Your task to perform on an android device: turn on the 12-hour format for clock Image 0: 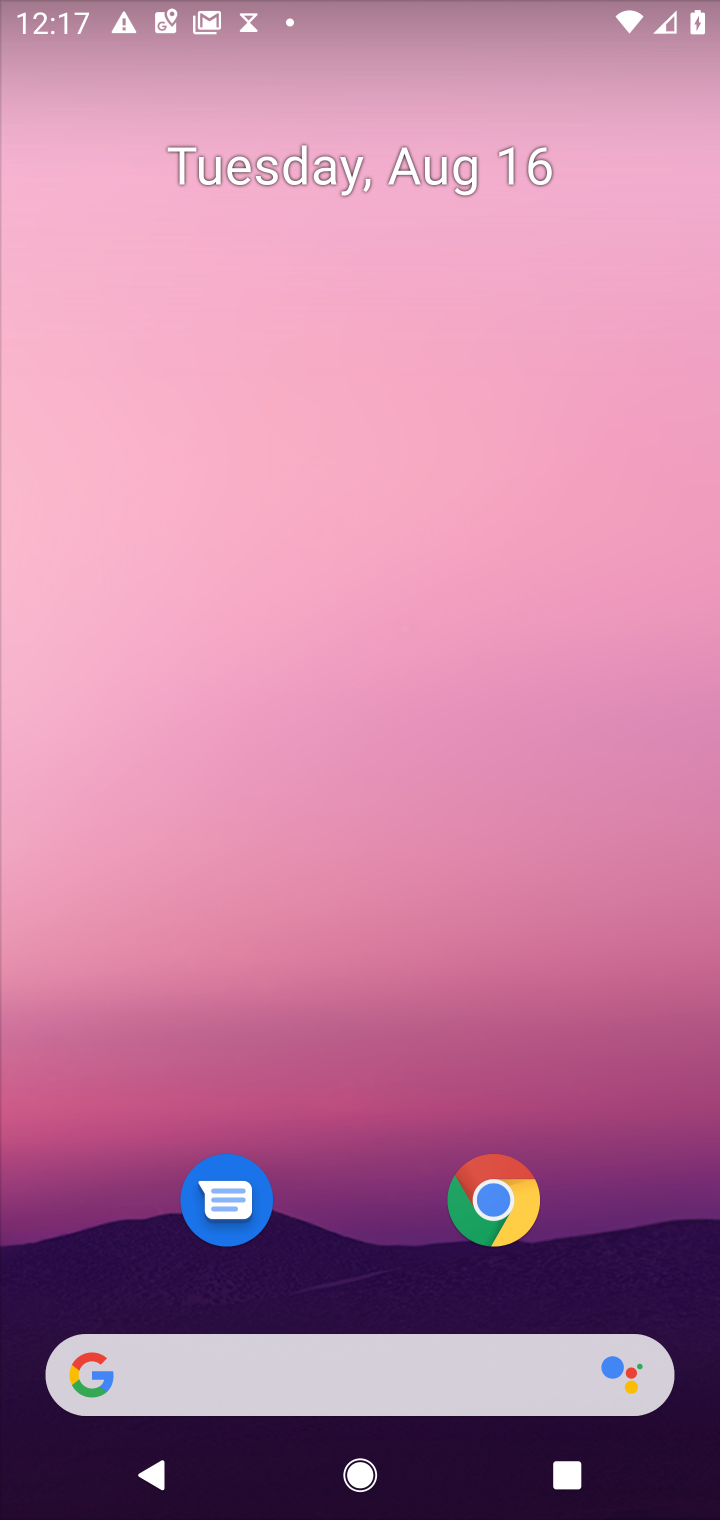
Step 0: drag from (355, 1193) to (344, 324)
Your task to perform on an android device: turn on the 12-hour format for clock Image 1: 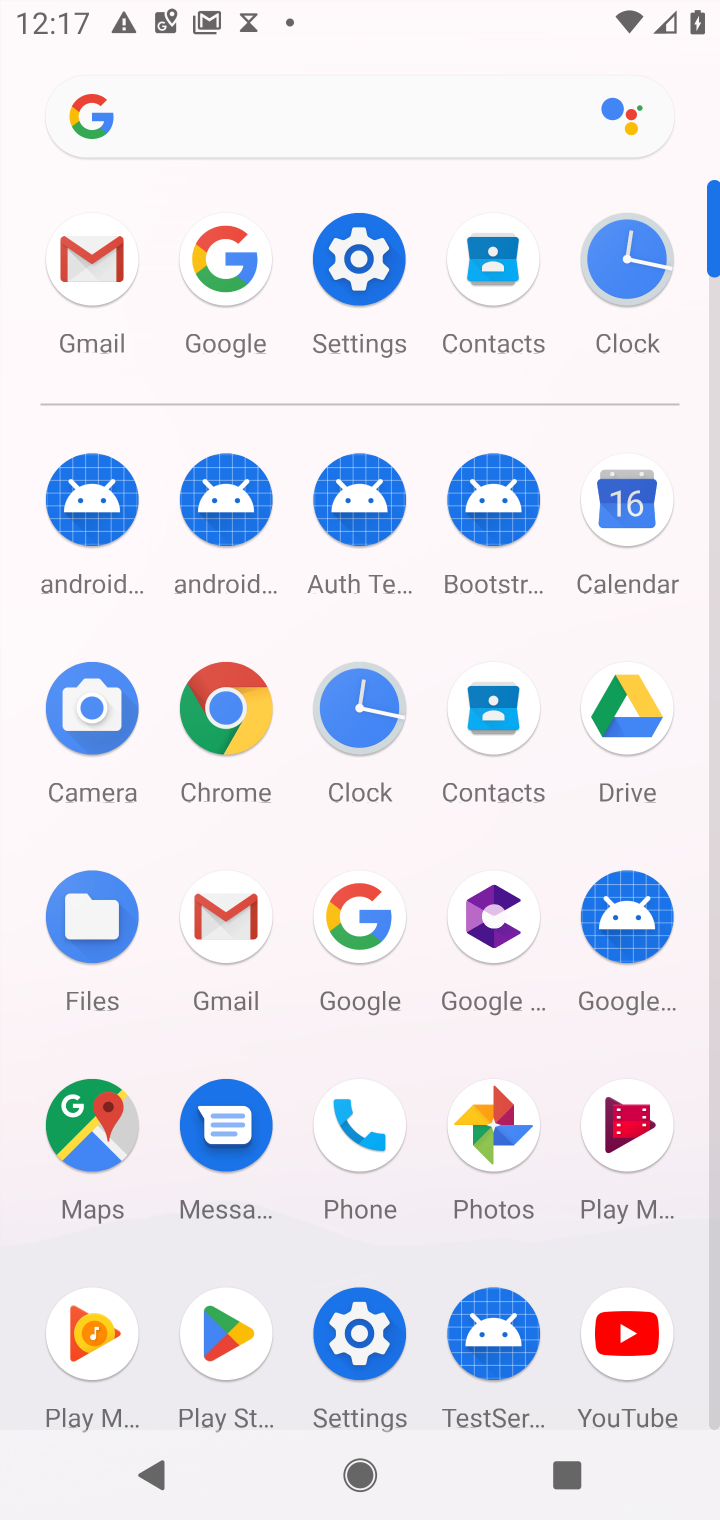
Step 1: click (624, 263)
Your task to perform on an android device: turn on the 12-hour format for clock Image 2: 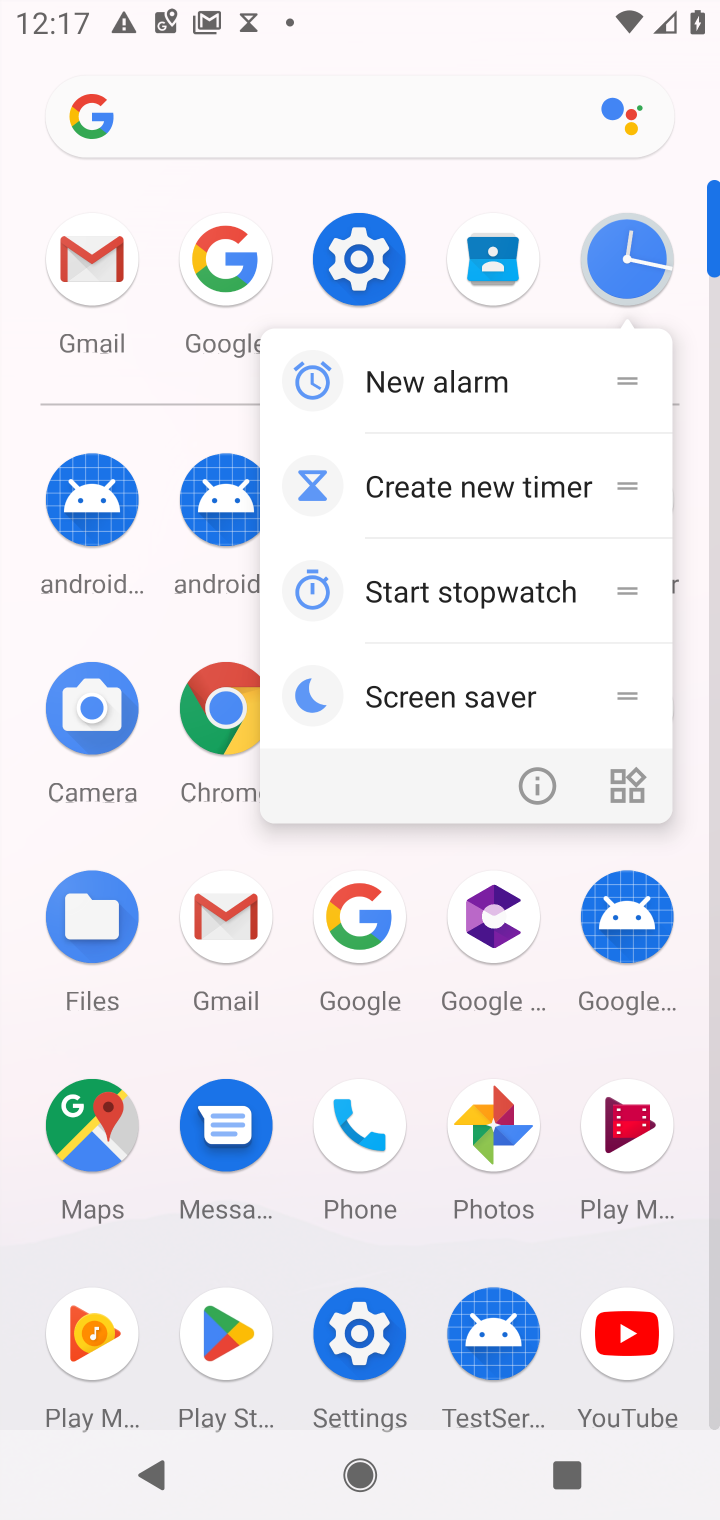
Step 2: click (624, 263)
Your task to perform on an android device: turn on the 12-hour format for clock Image 3: 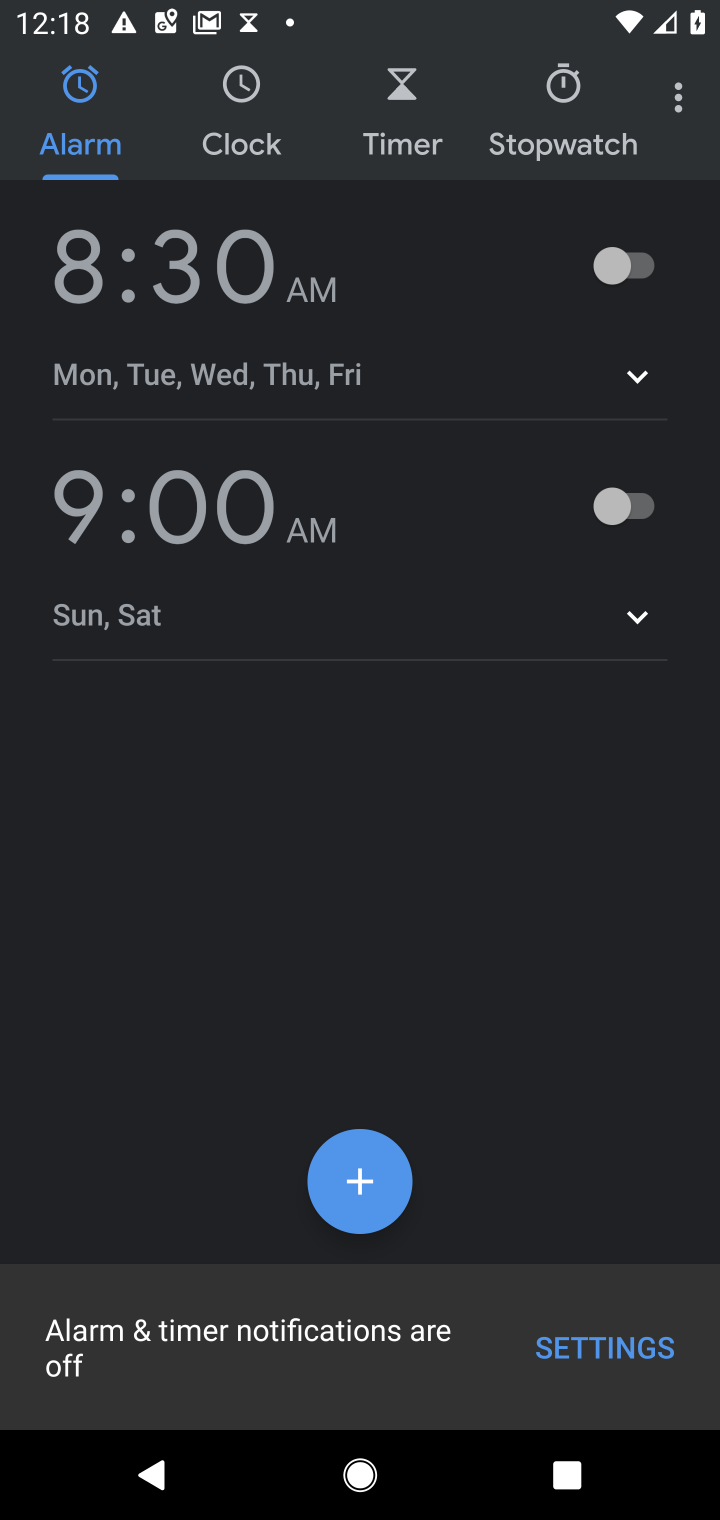
Step 3: click (669, 107)
Your task to perform on an android device: turn on the 12-hour format for clock Image 4: 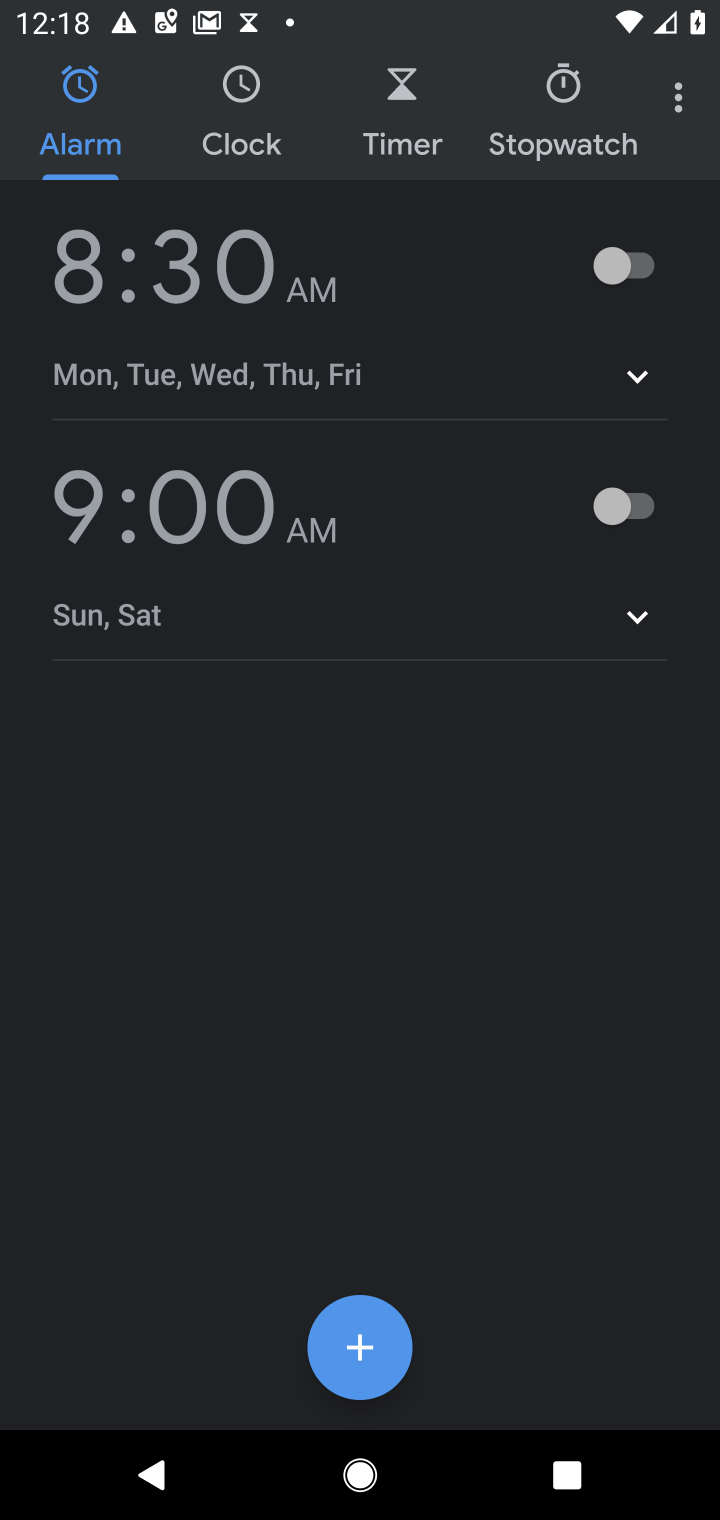
Step 4: click (662, 101)
Your task to perform on an android device: turn on the 12-hour format for clock Image 5: 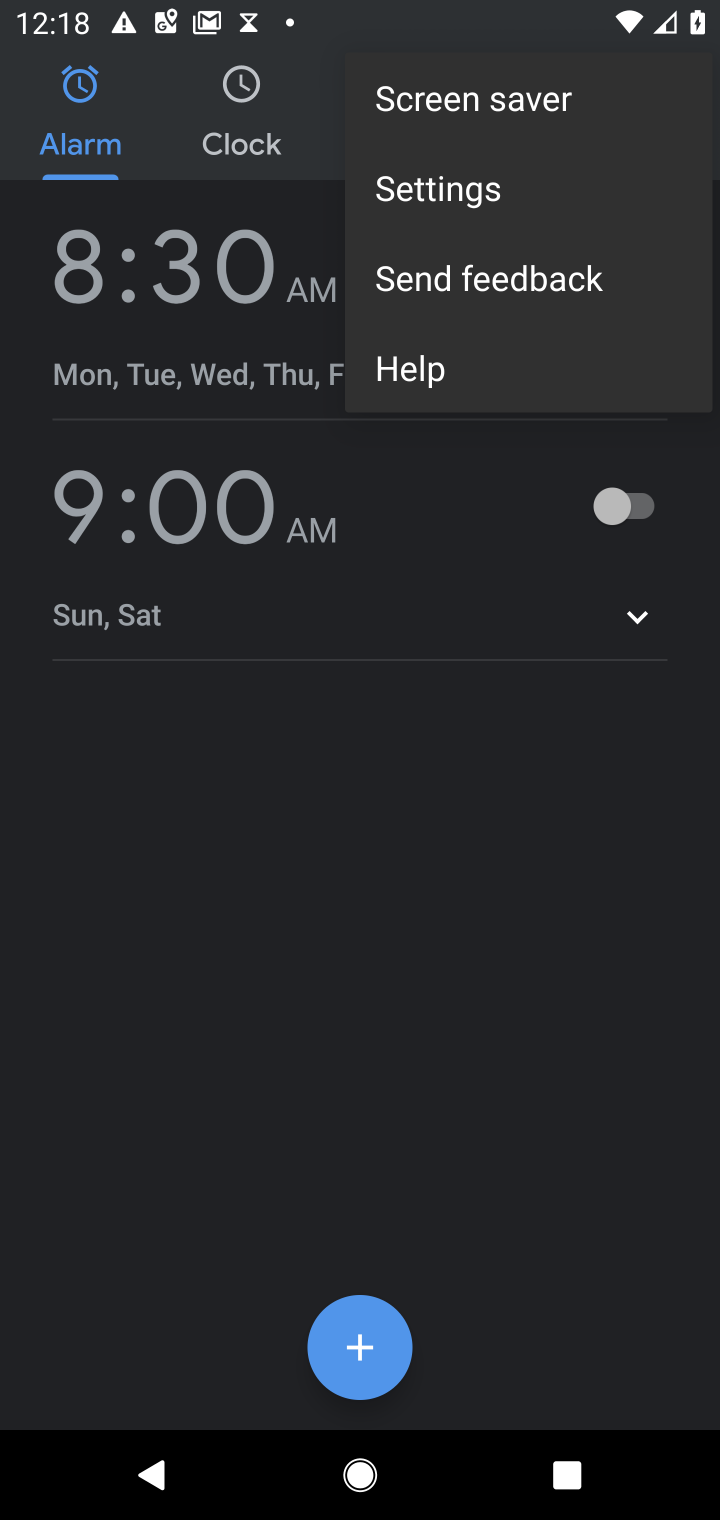
Step 5: click (442, 190)
Your task to perform on an android device: turn on the 12-hour format for clock Image 6: 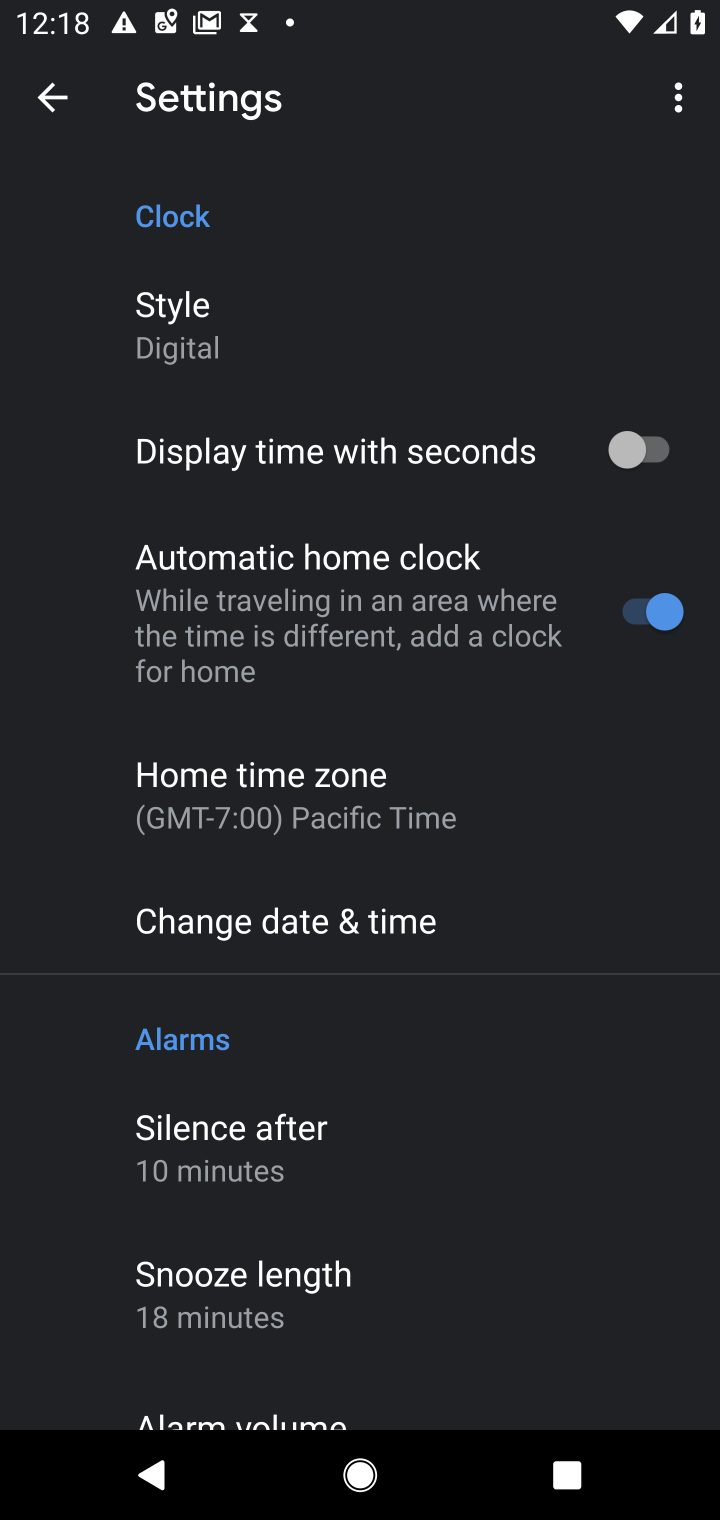
Step 6: click (262, 936)
Your task to perform on an android device: turn on the 12-hour format for clock Image 7: 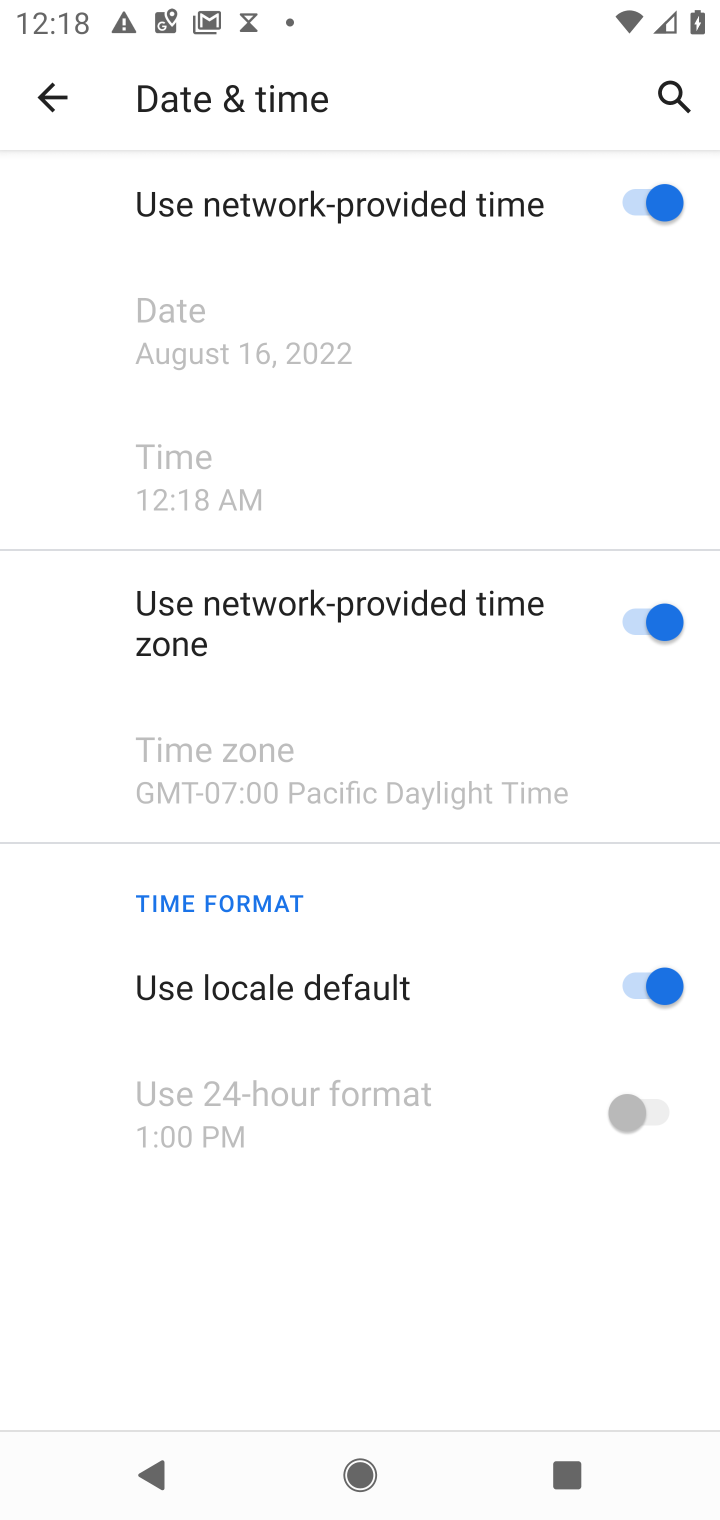
Step 7: task complete